Your task to perform on an android device: remove spam from my inbox in the gmail app Image 0: 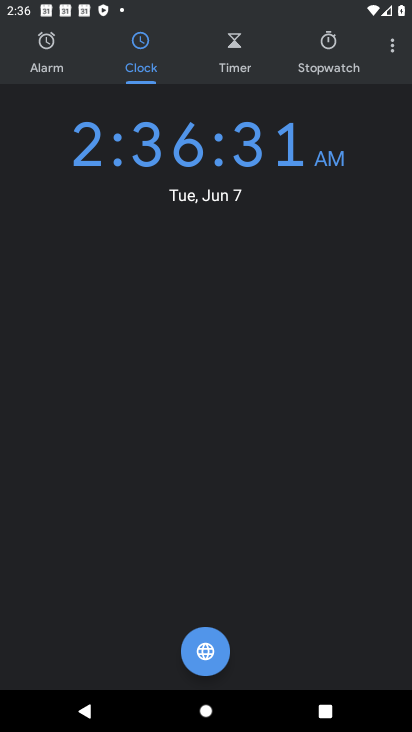
Step 0: press home button
Your task to perform on an android device: remove spam from my inbox in the gmail app Image 1: 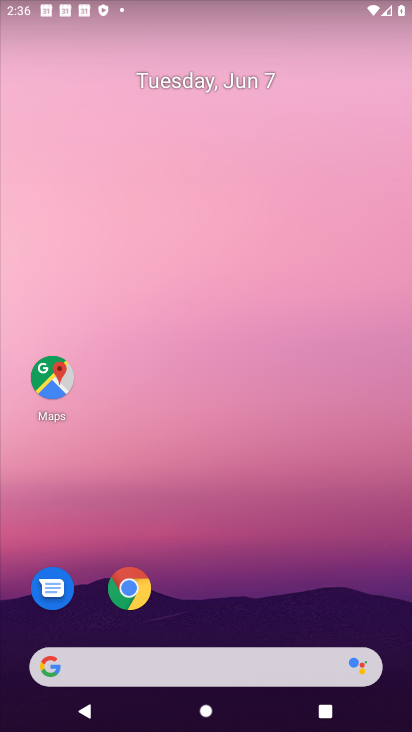
Step 1: click (335, 452)
Your task to perform on an android device: remove spam from my inbox in the gmail app Image 2: 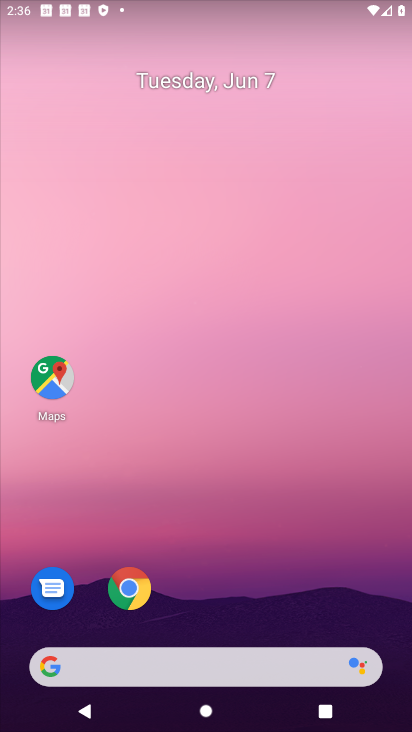
Step 2: drag from (320, 616) to (290, 169)
Your task to perform on an android device: remove spam from my inbox in the gmail app Image 3: 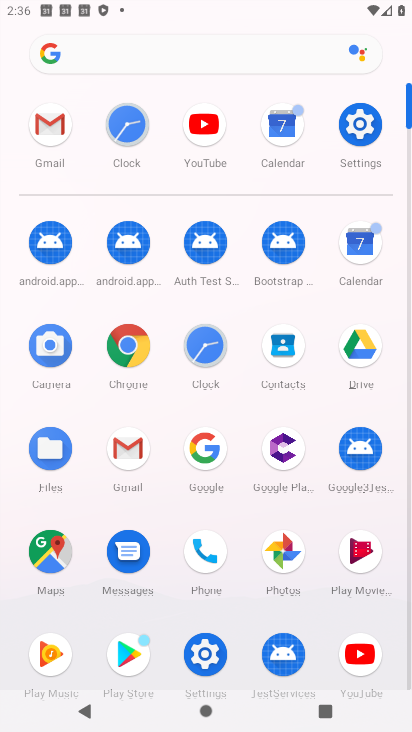
Step 3: click (56, 171)
Your task to perform on an android device: remove spam from my inbox in the gmail app Image 4: 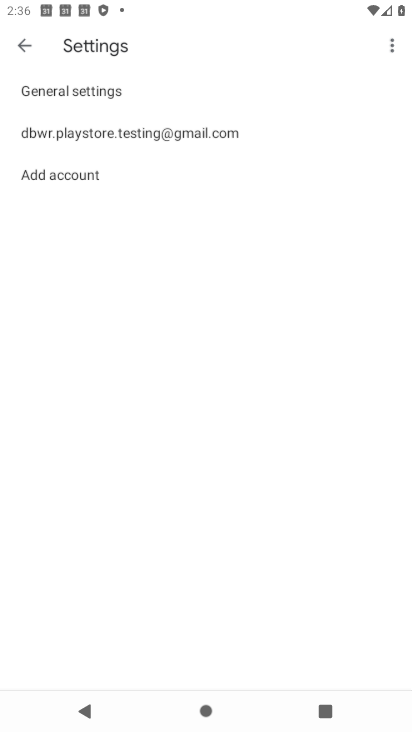
Step 4: task complete